Your task to perform on an android device: Go to Google Image 0: 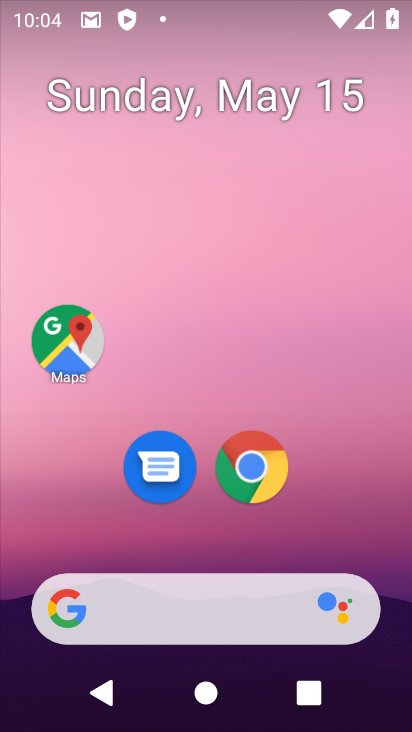
Step 0: click (329, 711)
Your task to perform on an android device: Go to Google Image 1: 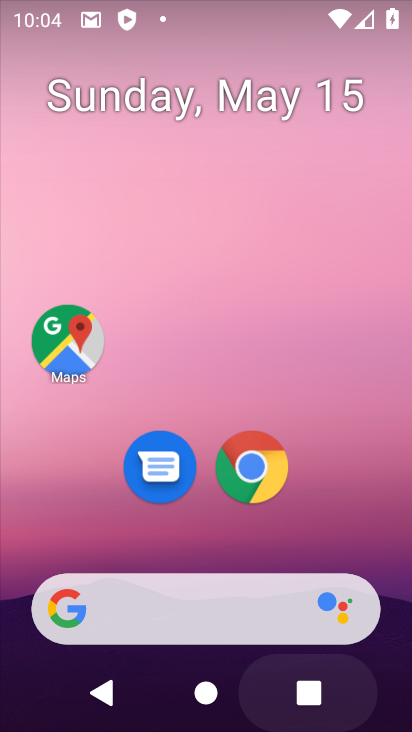
Step 1: drag from (222, 580) to (205, 33)
Your task to perform on an android device: Go to Google Image 2: 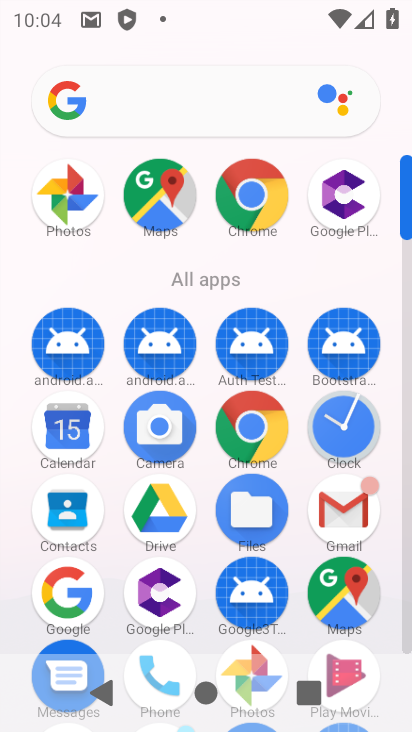
Step 2: click (87, 586)
Your task to perform on an android device: Go to Google Image 3: 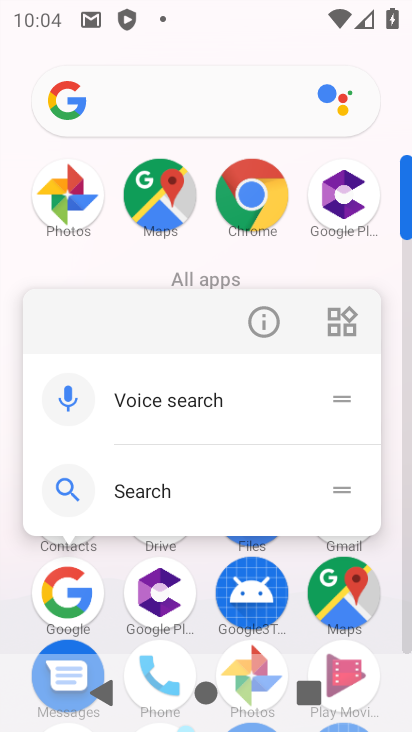
Step 3: click (255, 328)
Your task to perform on an android device: Go to Google Image 4: 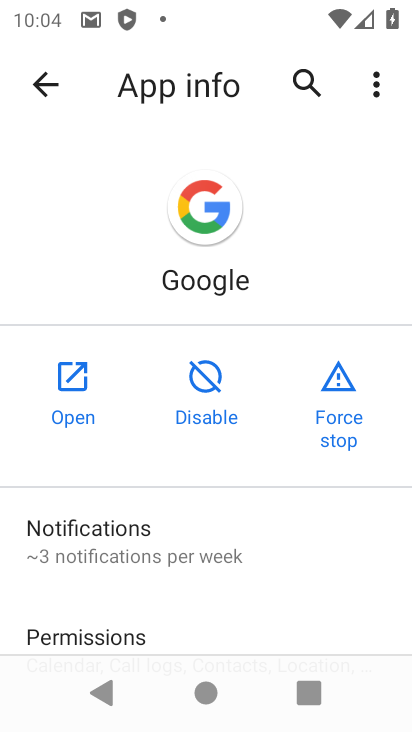
Step 4: click (81, 402)
Your task to perform on an android device: Go to Google Image 5: 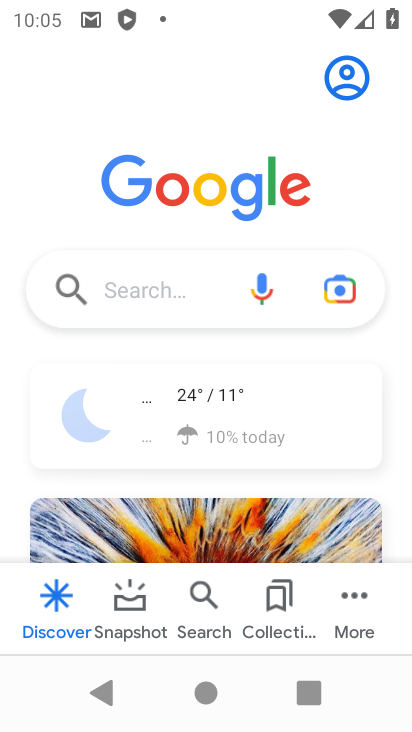
Step 5: task complete